Your task to perform on an android device: Open Wikipedia Image 0: 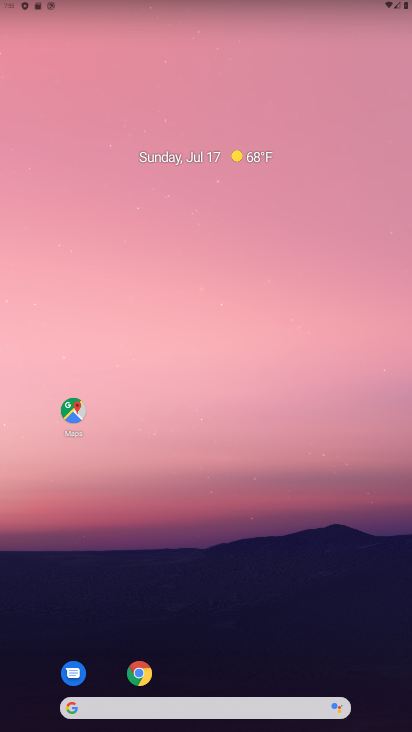
Step 0: drag from (250, 710) to (14, 6)
Your task to perform on an android device: Open Wikipedia Image 1: 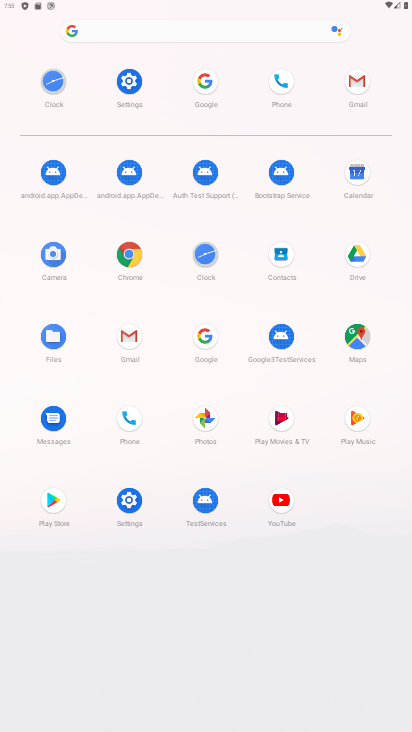
Step 1: click (135, 255)
Your task to perform on an android device: Open Wikipedia Image 2: 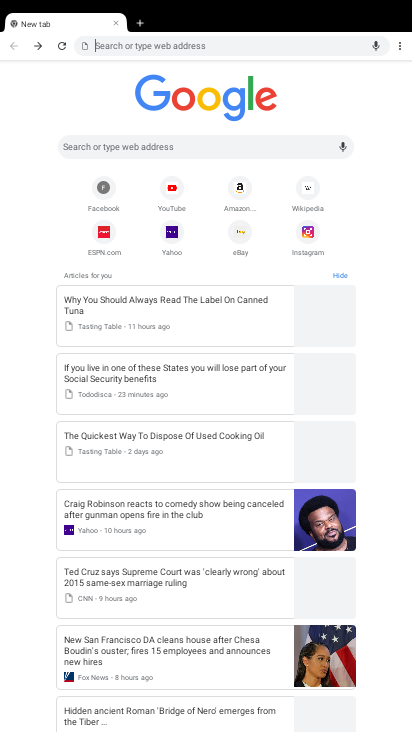
Step 2: click (310, 193)
Your task to perform on an android device: Open Wikipedia Image 3: 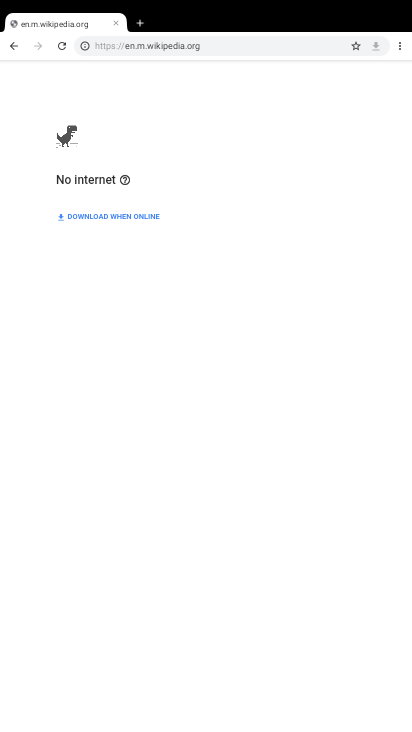
Step 3: task complete